Your task to perform on an android device: move a message to another label in the gmail app Image 0: 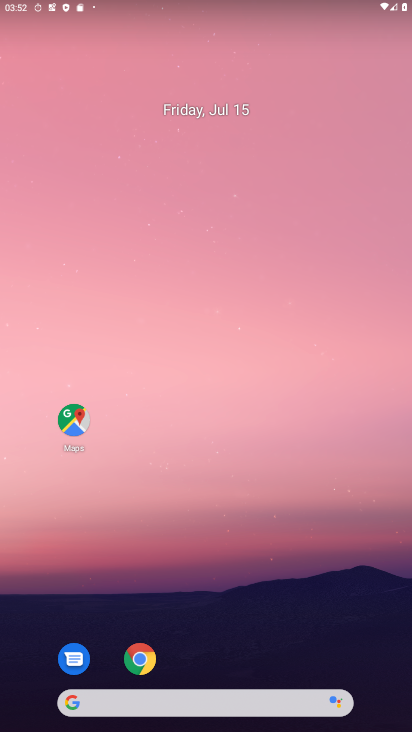
Step 0: drag from (221, 639) to (184, 223)
Your task to perform on an android device: move a message to another label in the gmail app Image 1: 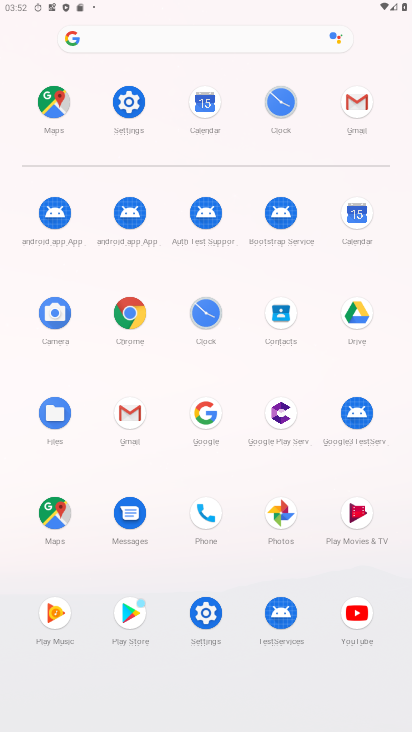
Step 1: click (130, 412)
Your task to perform on an android device: move a message to another label in the gmail app Image 2: 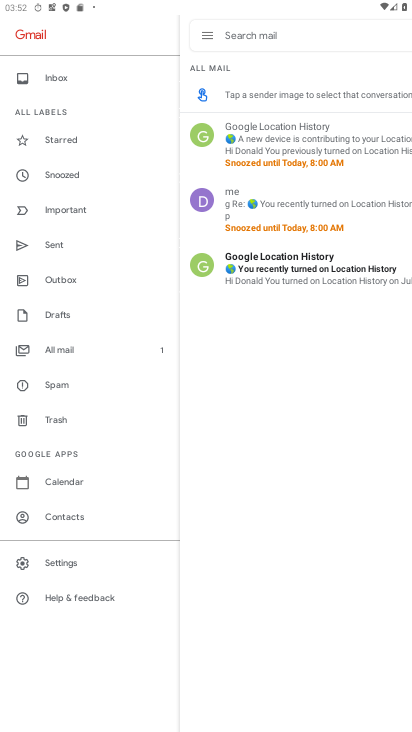
Step 2: click (326, 150)
Your task to perform on an android device: move a message to another label in the gmail app Image 3: 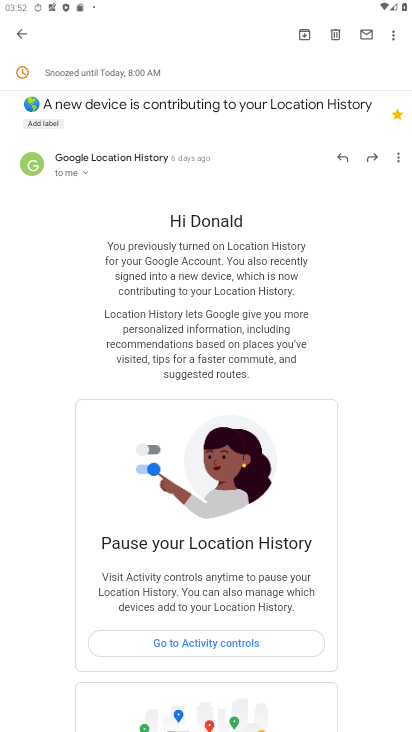
Step 3: click (392, 39)
Your task to perform on an android device: move a message to another label in the gmail app Image 4: 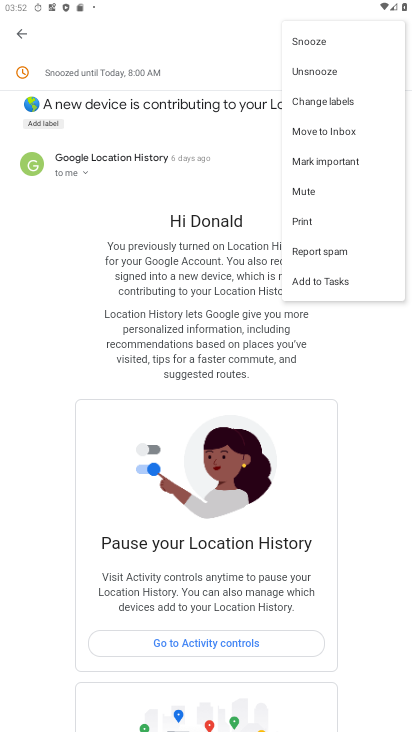
Step 4: click (335, 155)
Your task to perform on an android device: move a message to another label in the gmail app Image 5: 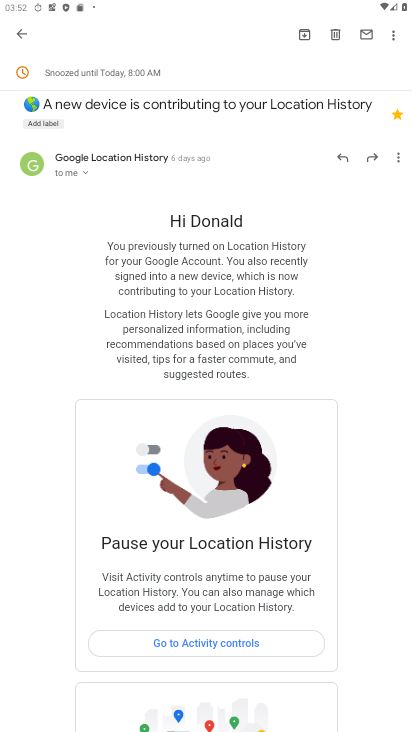
Step 5: task complete